Your task to perform on an android device: Add alienware aurora to the cart on ebay, then select checkout. Image 0: 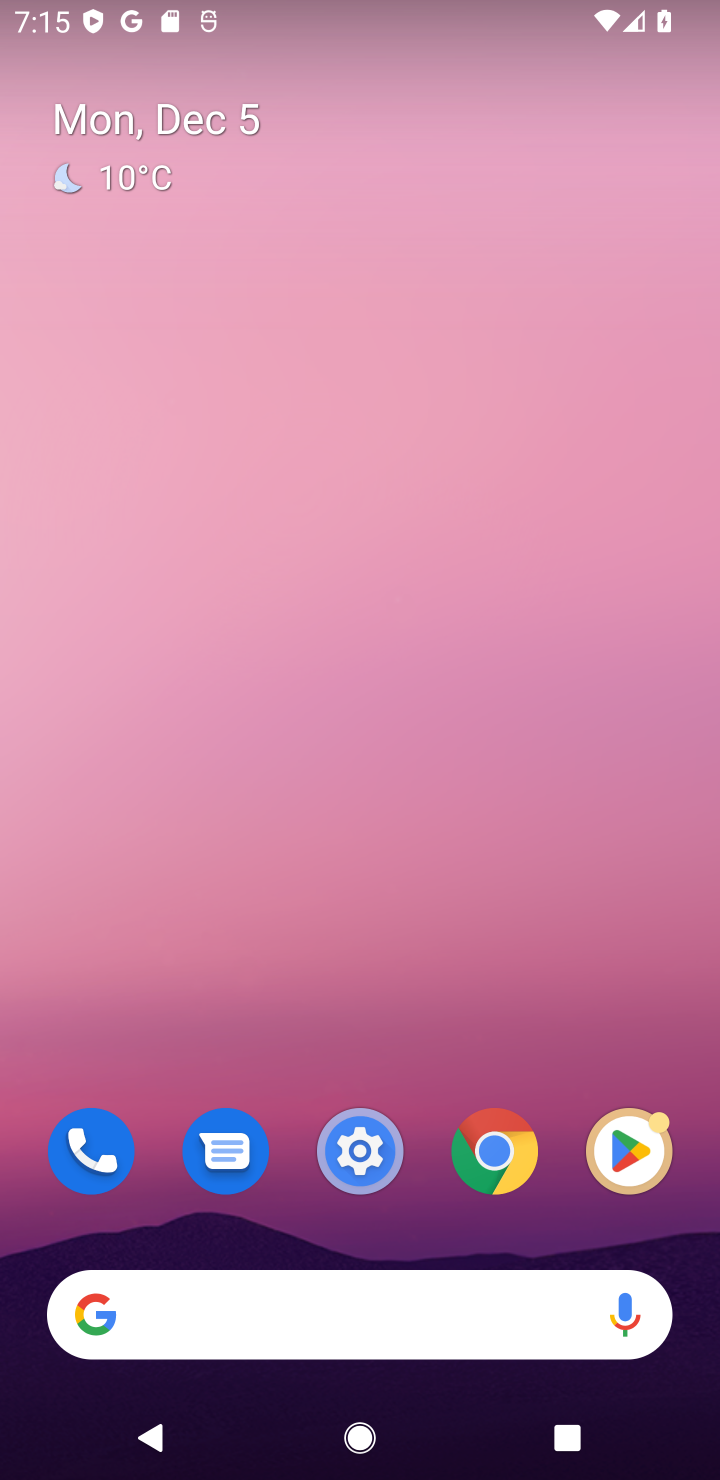
Step 0: click (307, 1327)
Your task to perform on an android device: Add alienware aurora to the cart on ebay, then select checkout. Image 1: 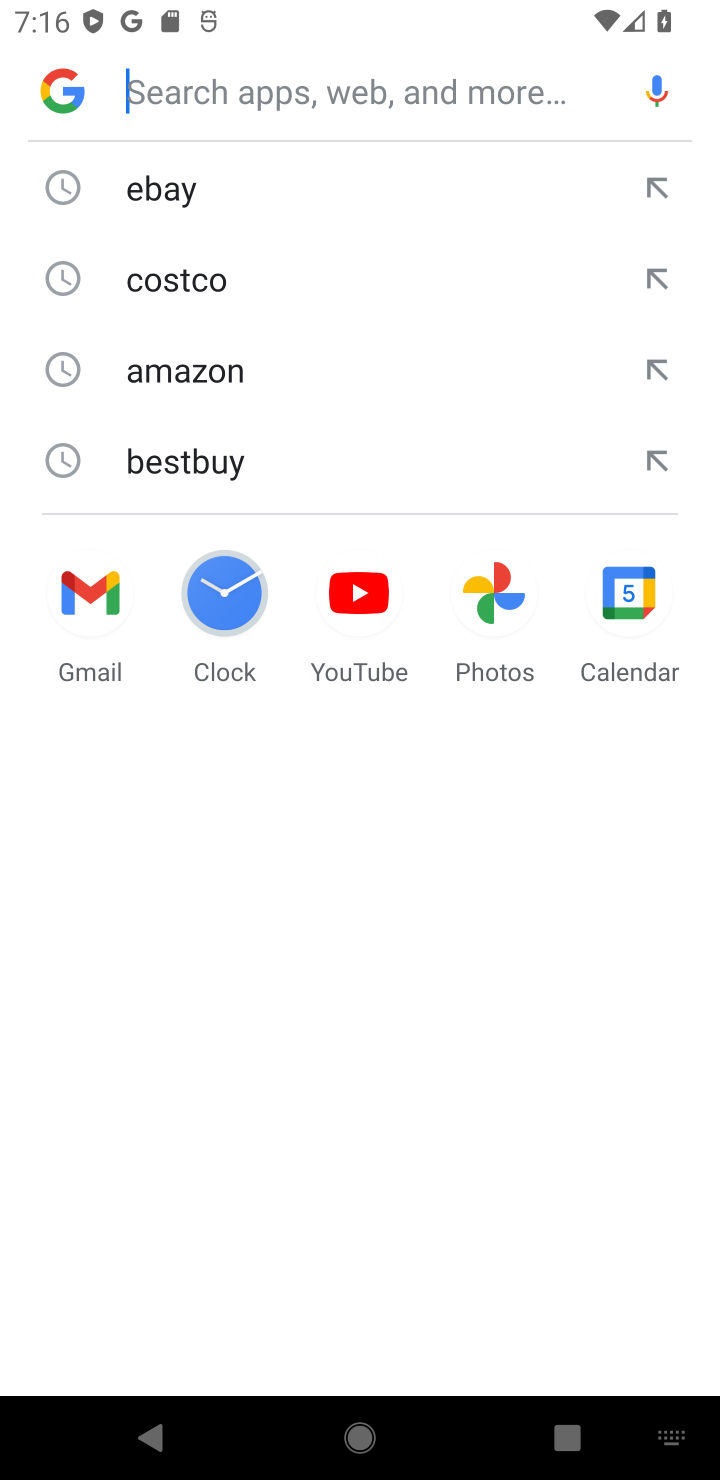
Step 1: click (182, 213)
Your task to perform on an android device: Add alienware aurora to the cart on ebay, then select checkout. Image 2: 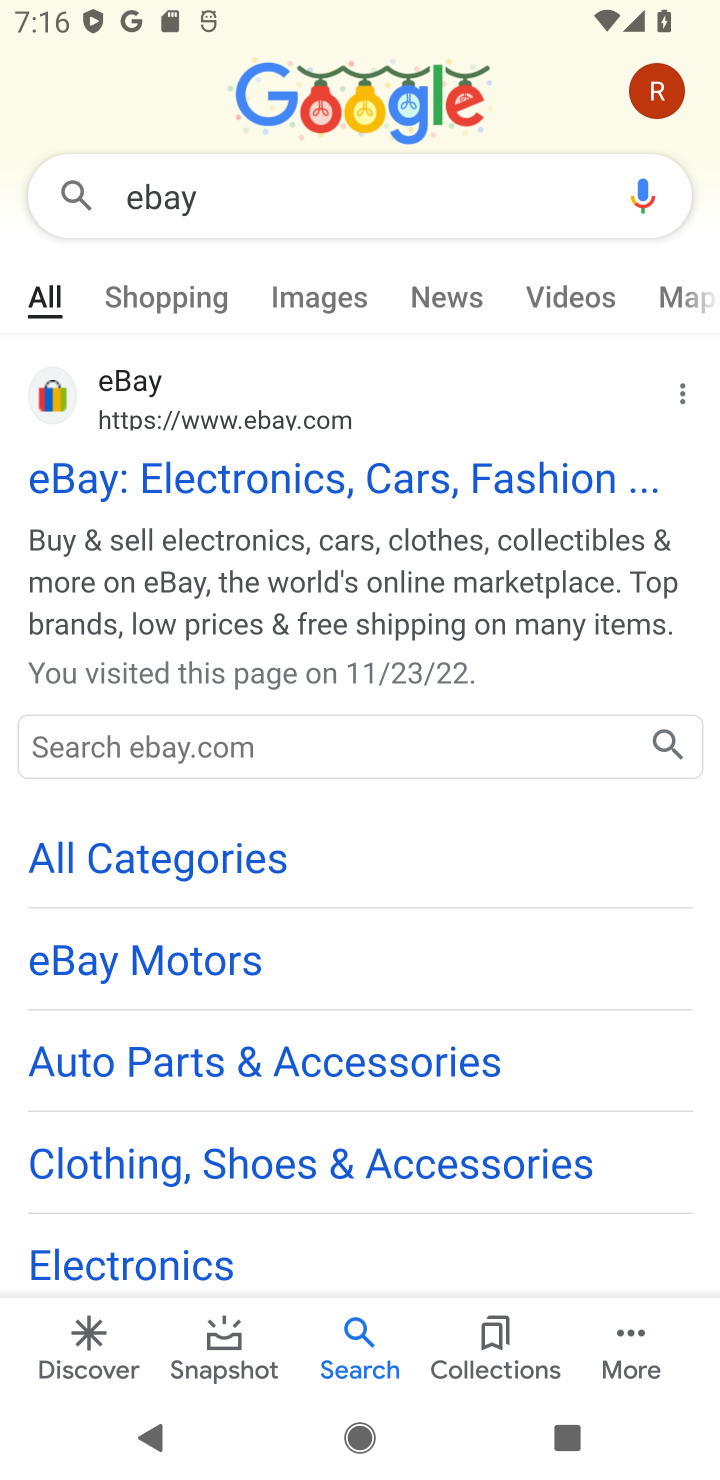
Step 2: click (159, 459)
Your task to perform on an android device: Add alienware aurora to the cart on ebay, then select checkout. Image 3: 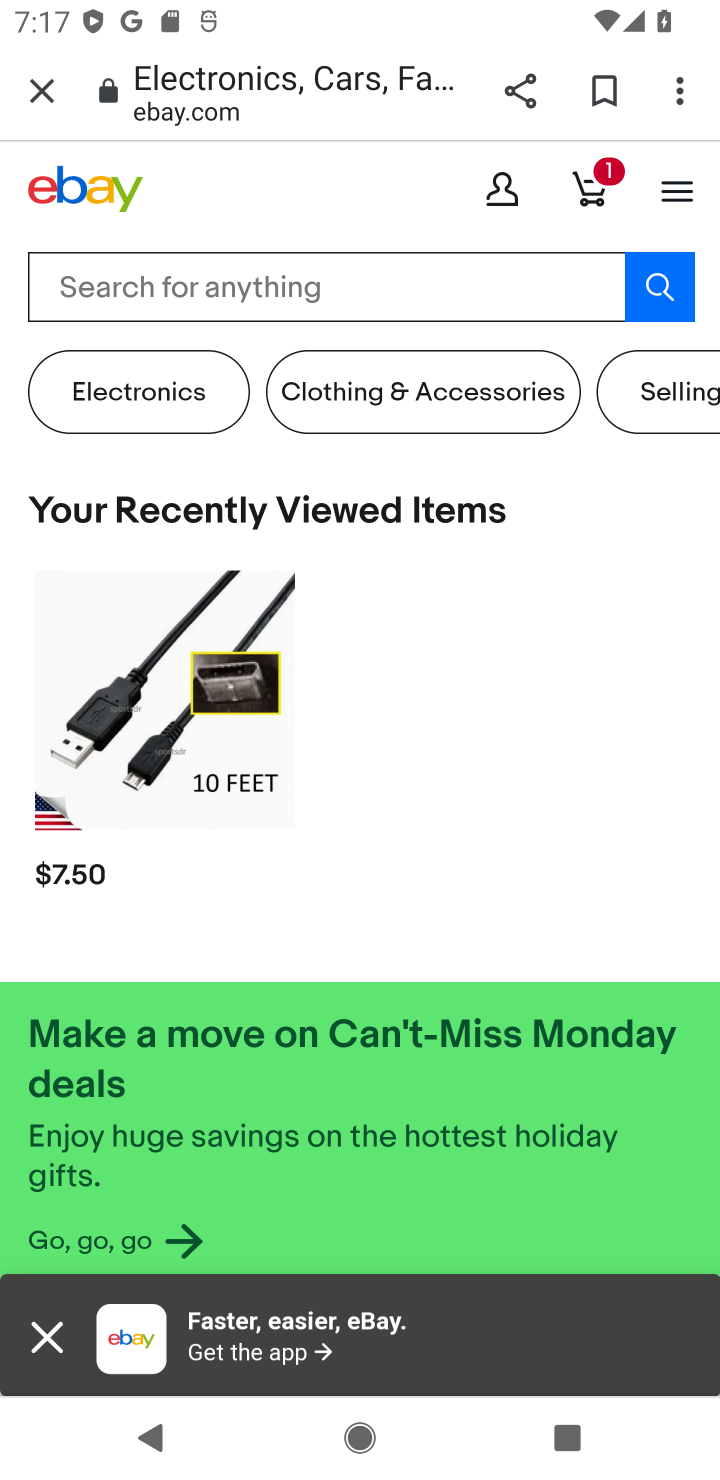
Step 3: click (294, 307)
Your task to perform on an android device: Add alienware aurora to the cart on ebay, then select checkout. Image 4: 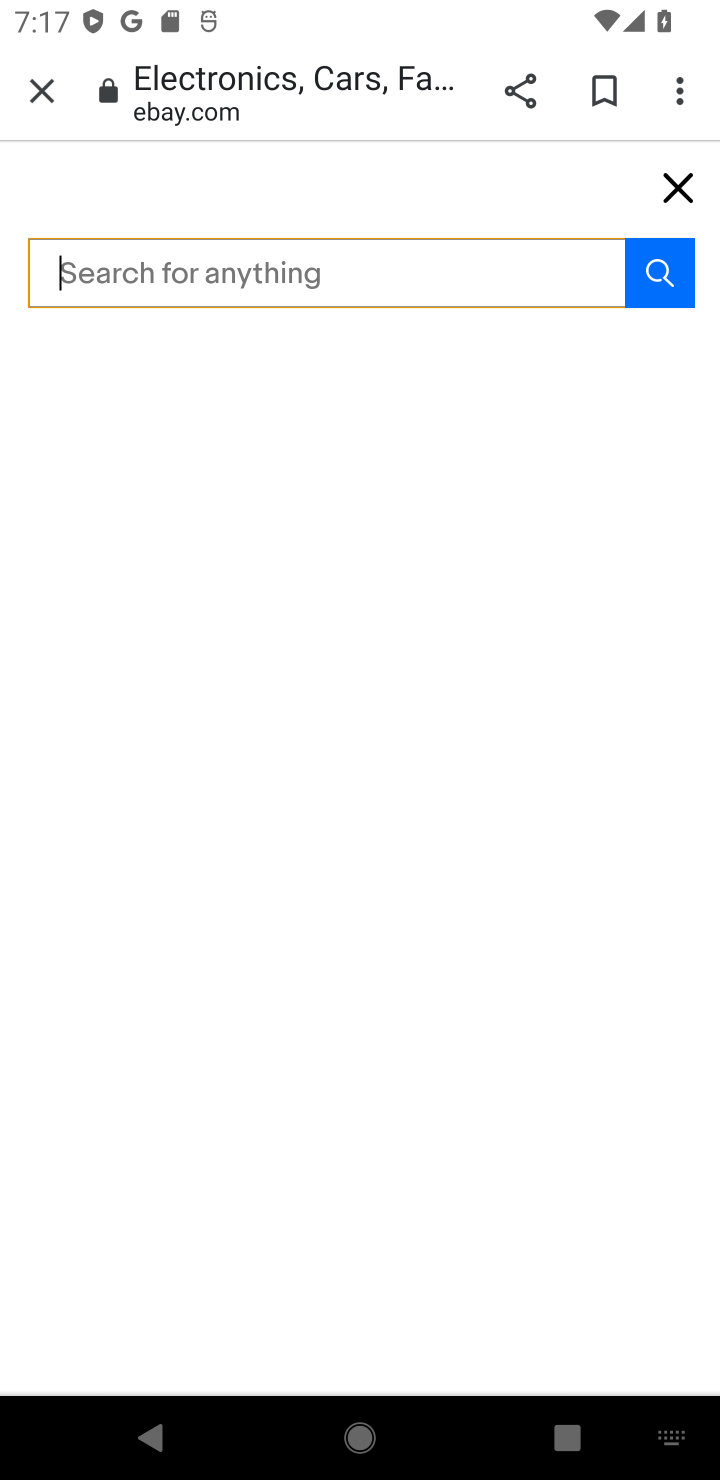
Step 4: type "alienware aurora"
Your task to perform on an android device: Add alienware aurora to the cart on ebay, then select checkout. Image 5: 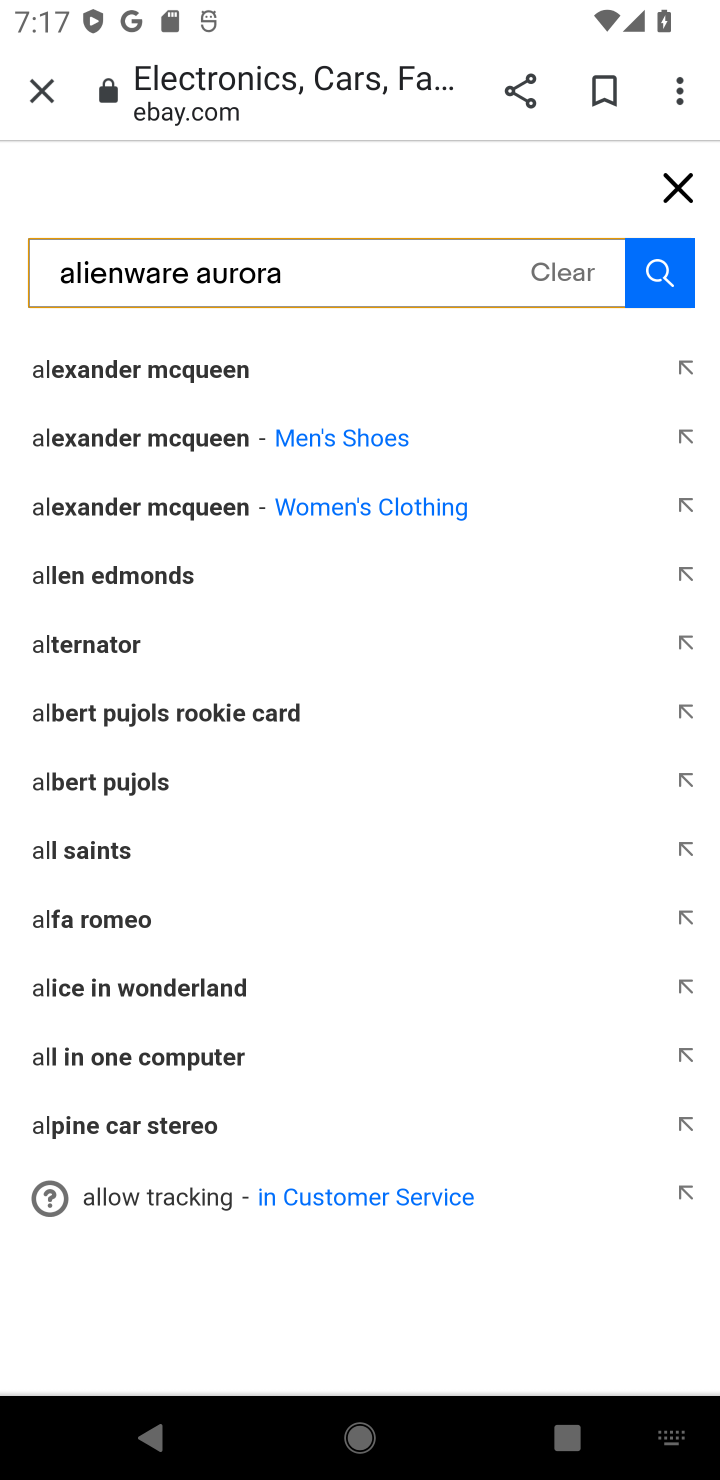
Step 5: click (654, 278)
Your task to perform on an android device: Add alienware aurora to the cart on ebay, then select checkout. Image 6: 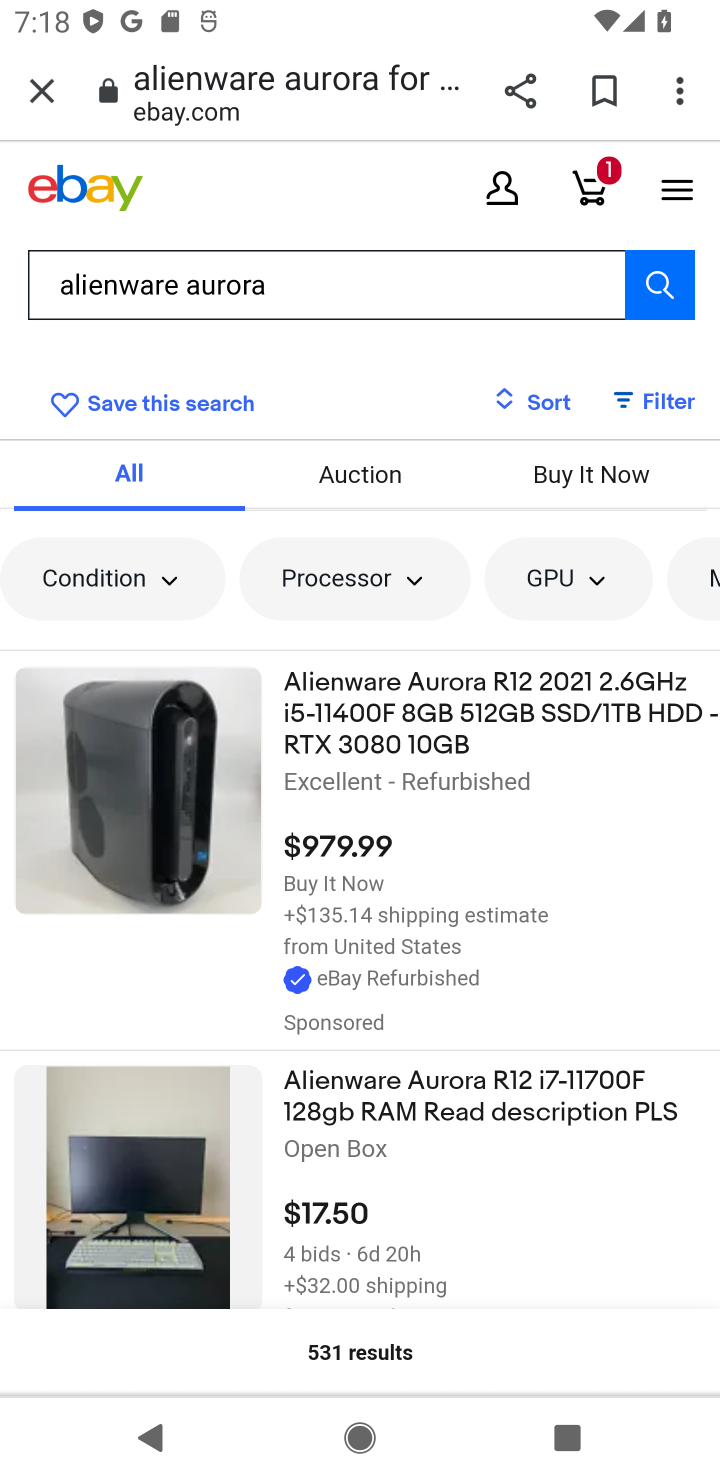
Step 6: click (320, 701)
Your task to perform on an android device: Add alienware aurora to the cart on ebay, then select checkout. Image 7: 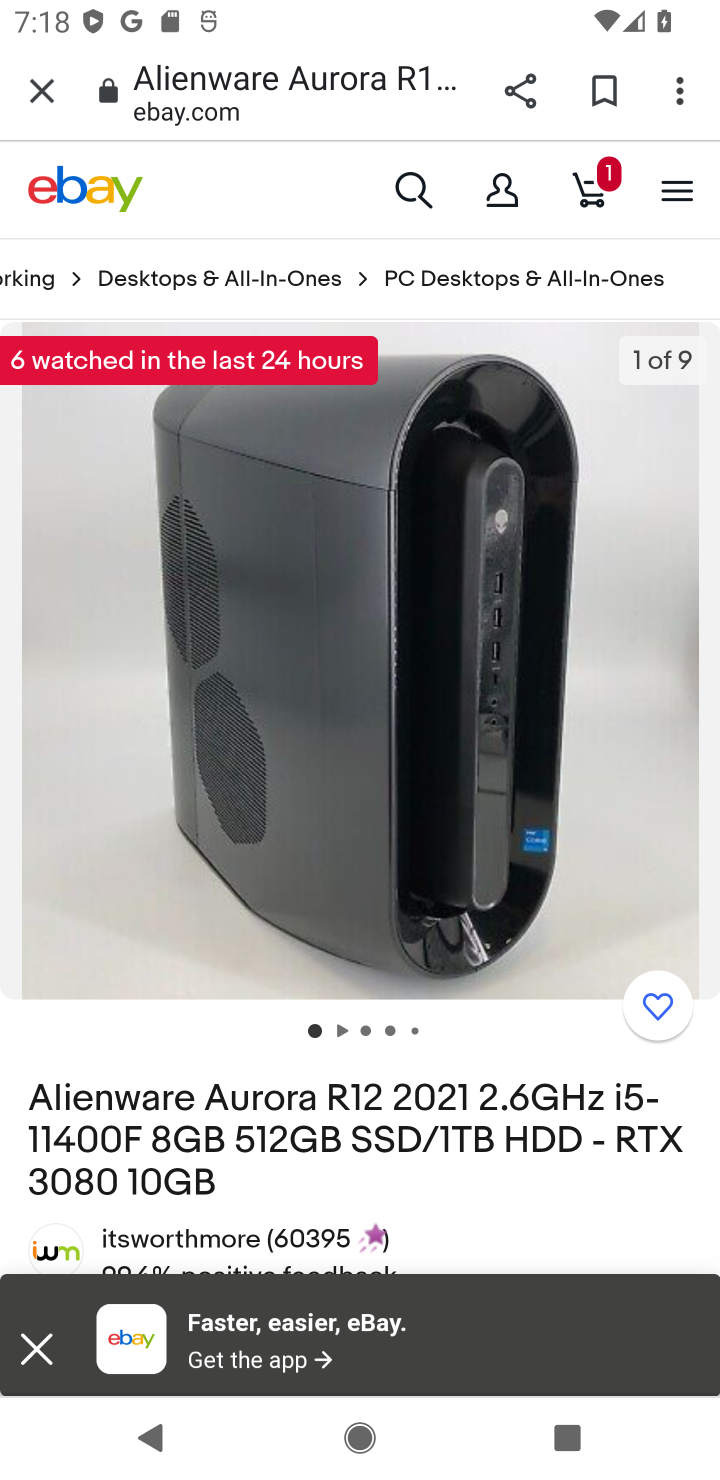
Step 7: drag from (478, 1092) to (489, 587)
Your task to perform on an android device: Add alienware aurora to the cart on ebay, then select checkout. Image 8: 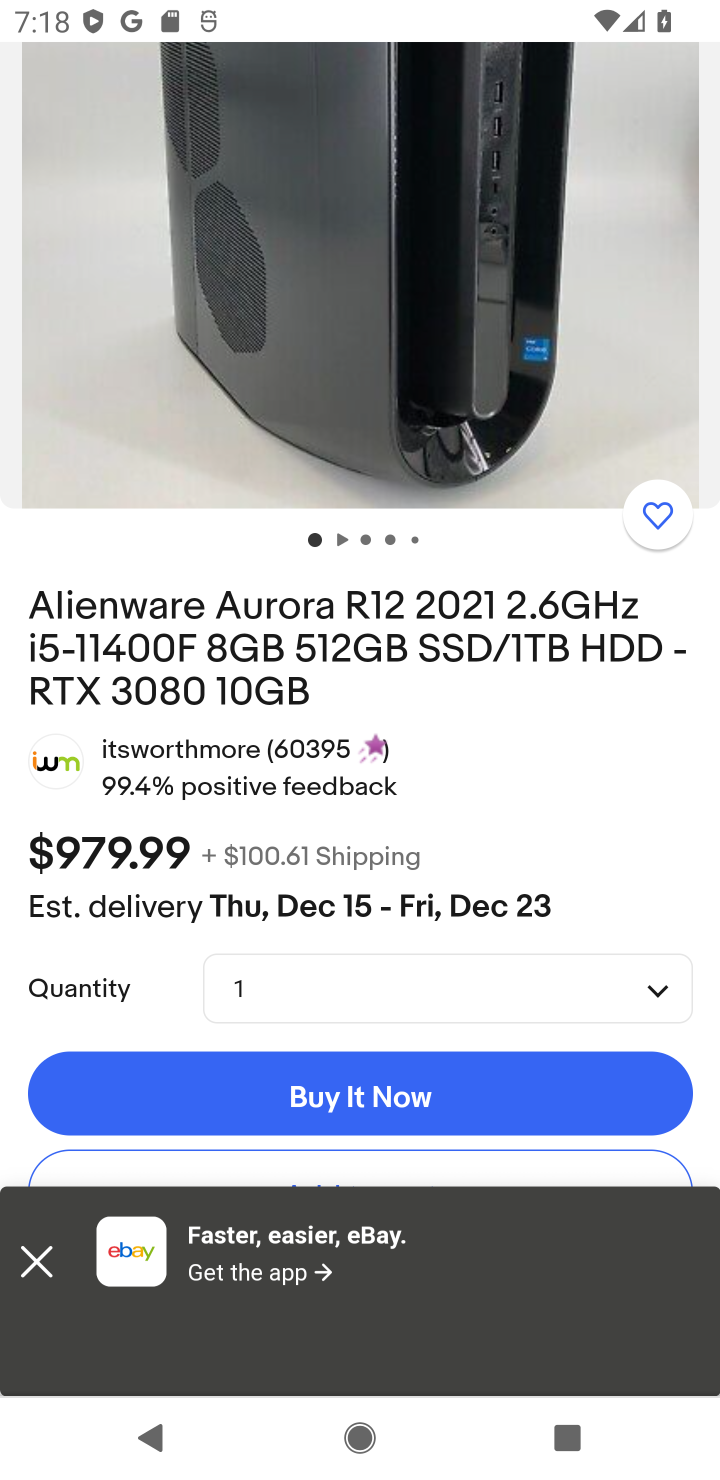
Step 8: drag from (258, 1075) to (317, 702)
Your task to perform on an android device: Add alienware aurora to the cart on ebay, then select checkout. Image 9: 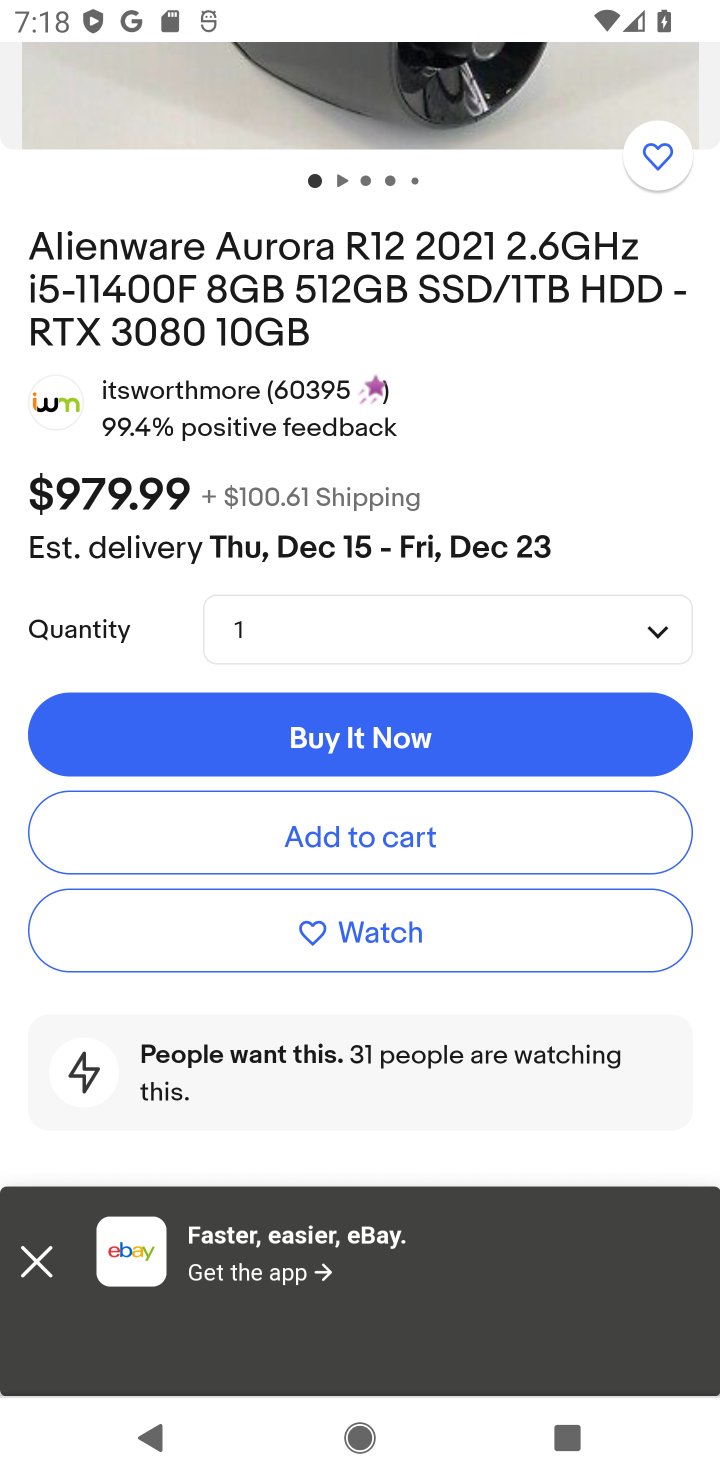
Step 9: click (471, 830)
Your task to perform on an android device: Add alienware aurora to the cart on ebay, then select checkout. Image 10: 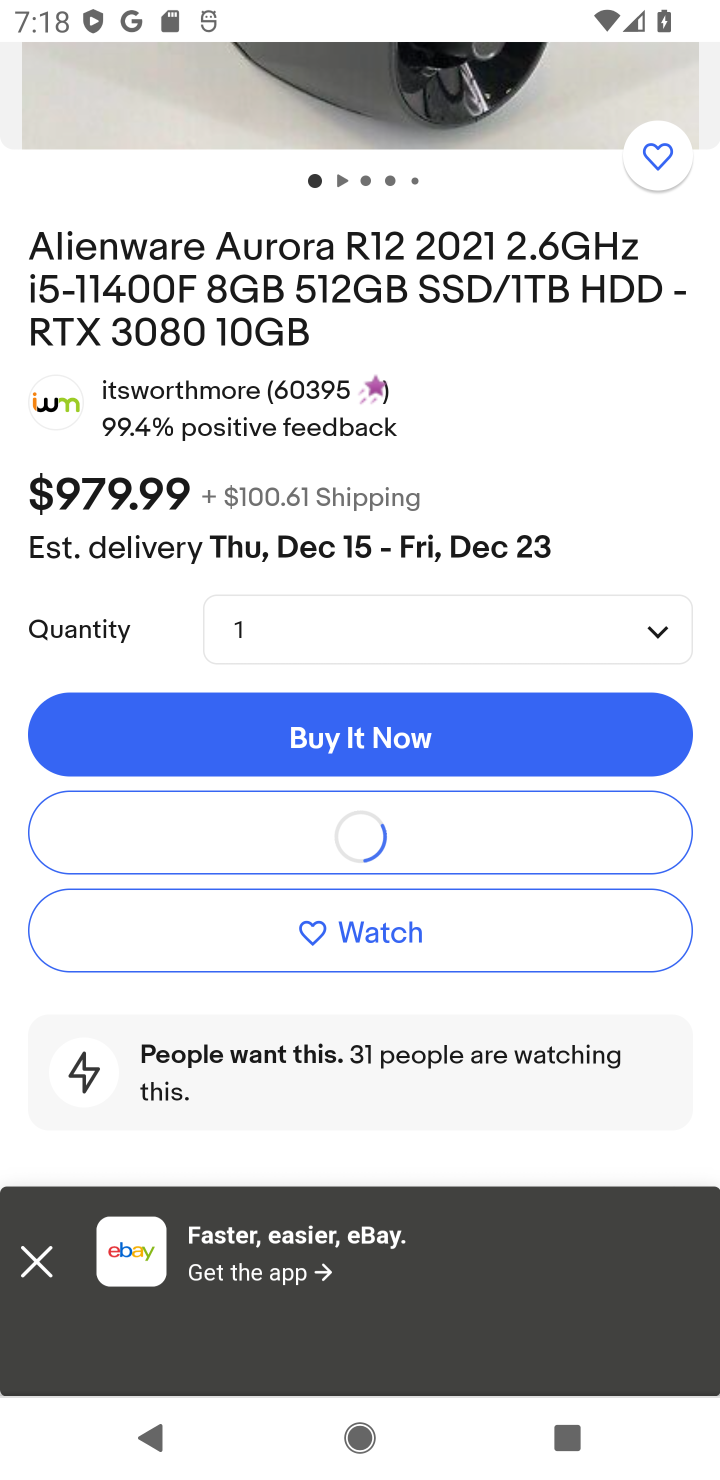
Step 10: task complete